Your task to perform on an android device: Open internet settings Image 0: 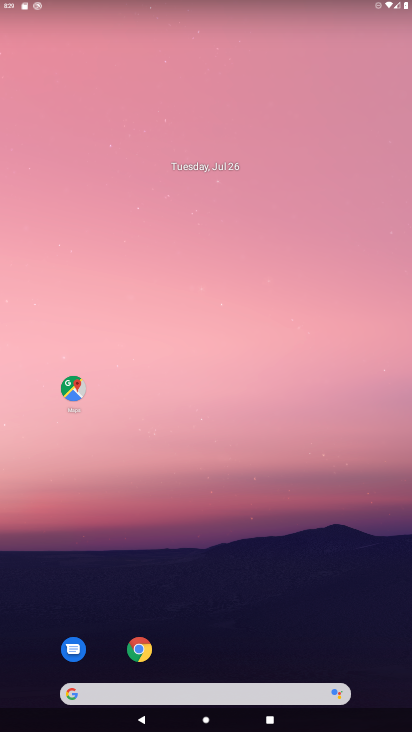
Step 0: drag from (188, 7) to (205, 721)
Your task to perform on an android device: Open internet settings Image 1: 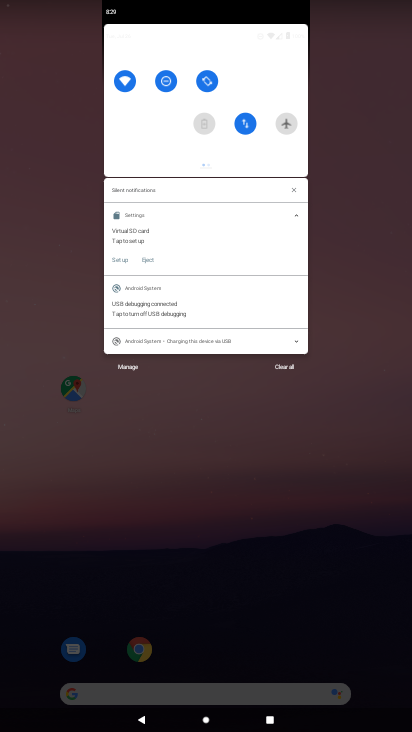
Step 1: click (205, 721)
Your task to perform on an android device: Open internet settings Image 2: 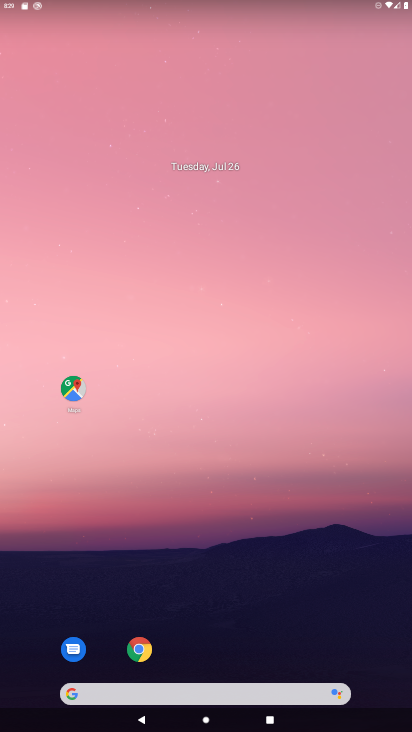
Step 2: drag from (223, 7) to (258, 654)
Your task to perform on an android device: Open internet settings Image 3: 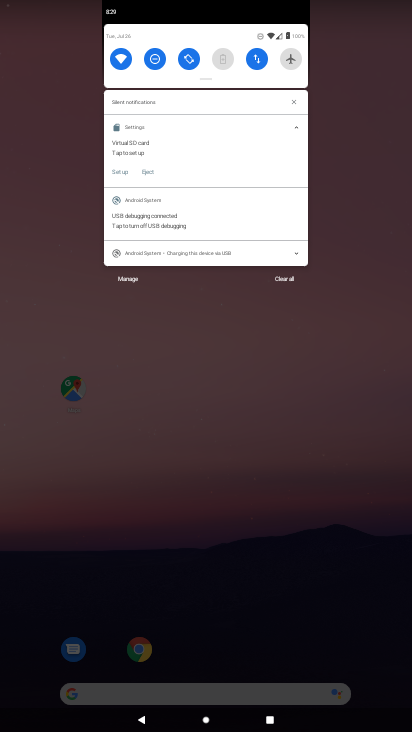
Step 3: click (257, 57)
Your task to perform on an android device: Open internet settings Image 4: 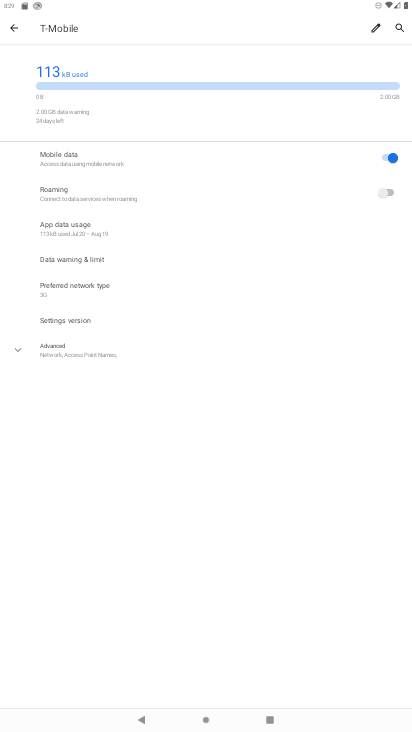
Step 4: task complete